Your task to perform on an android device: turn pop-ups off in chrome Image 0: 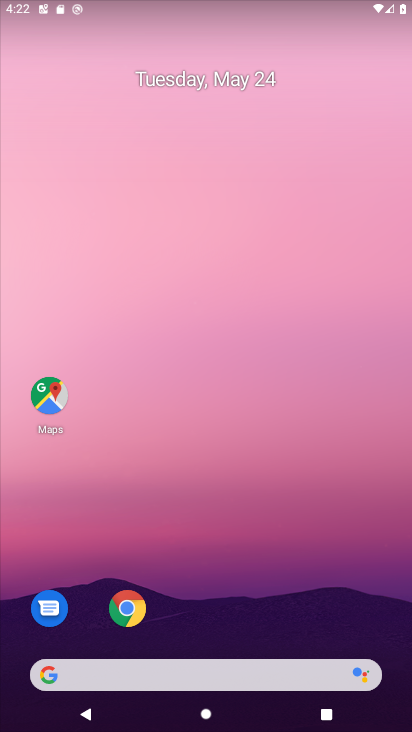
Step 0: click (132, 608)
Your task to perform on an android device: turn pop-ups off in chrome Image 1: 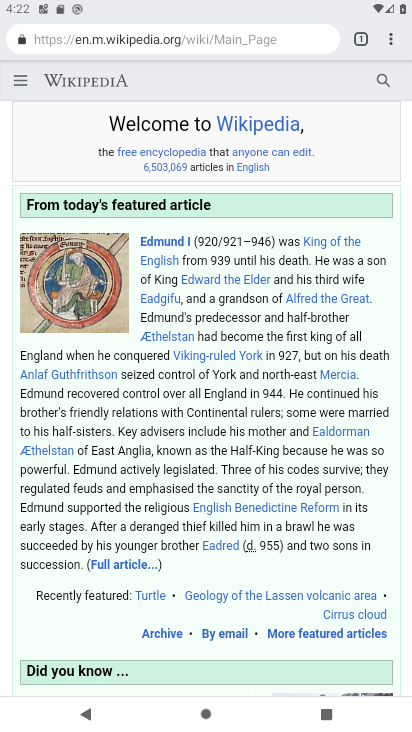
Step 1: click (397, 32)
Your task to perform on an android device: turn pop-ups off in chrome Image 2: 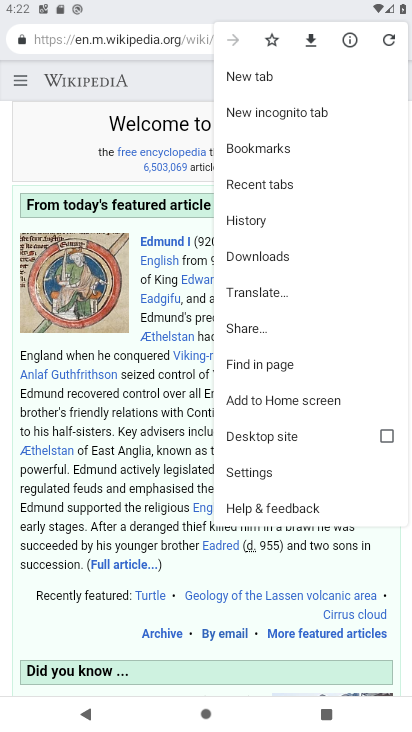
Step 2: click (252, 471)
Your task to perform on an android device: turn pop-ups off in chrome Image 3: 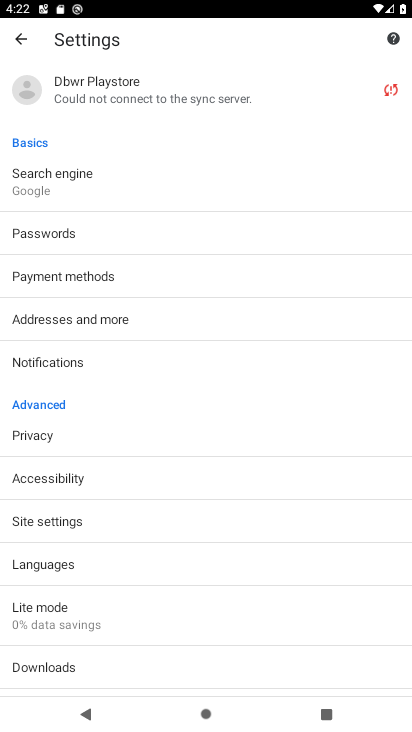
Step 3: drag from (59, 632) to (78, 313)
Your task to perform on an android device: turn pop-ups off in chrome Image 4: 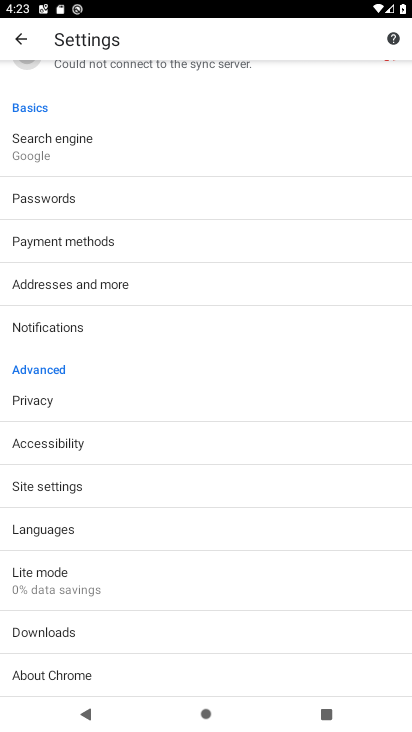
Step 4: click (49, 484)
Your task to perform on an android device: turn pop-ups off in chrome Image 5: 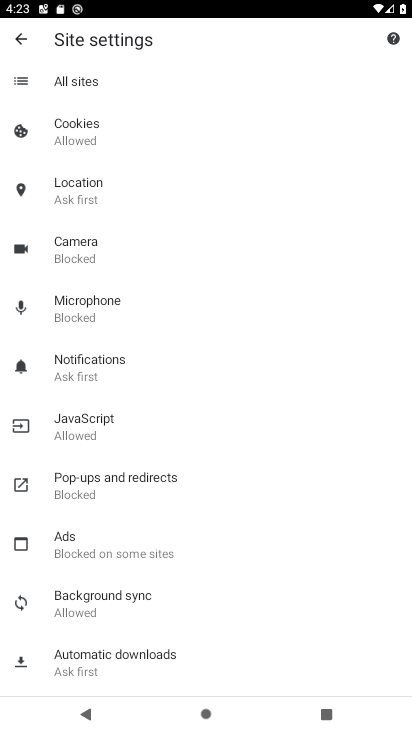
Step 5: click (103, 483)
Your task to perform on an android device: turn pop-ups off in chrome Image 6: 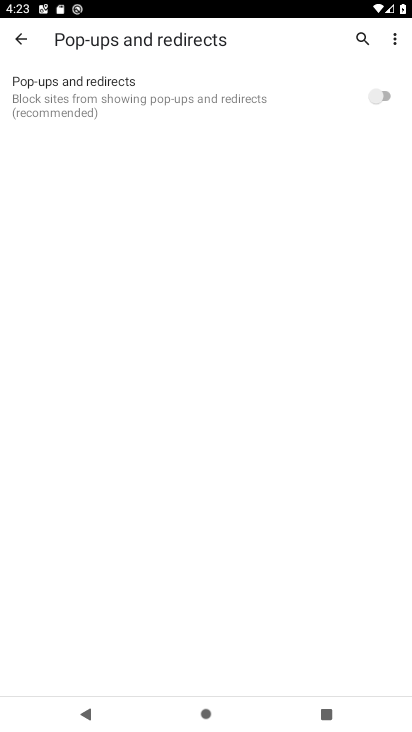
Step 6: task complete